Your task to perform on an android device: open app "Speedtest by Ookla" (install if not already installed) Image 0: 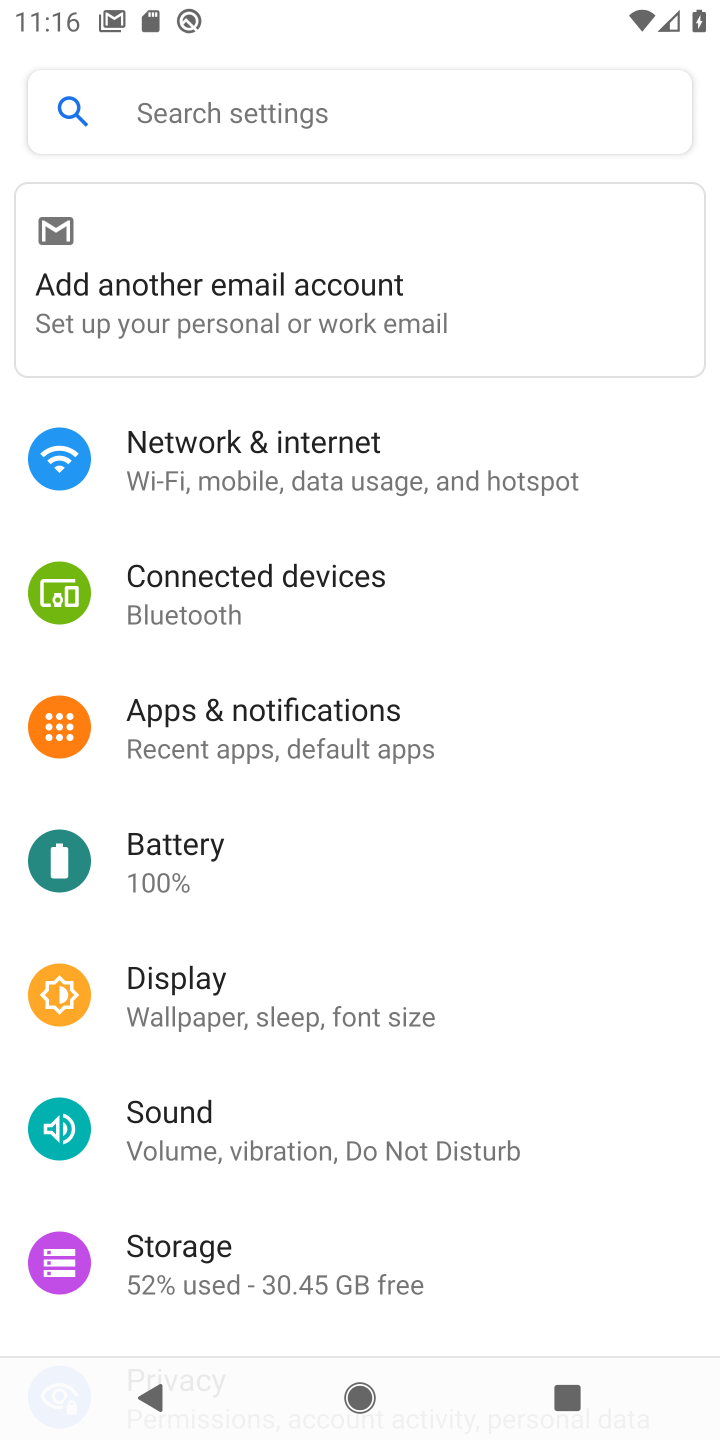
Step 0: press home button
Your task to perform on an android device: open app "Speedtest by Ookla" (install if not already installed) Image 1: 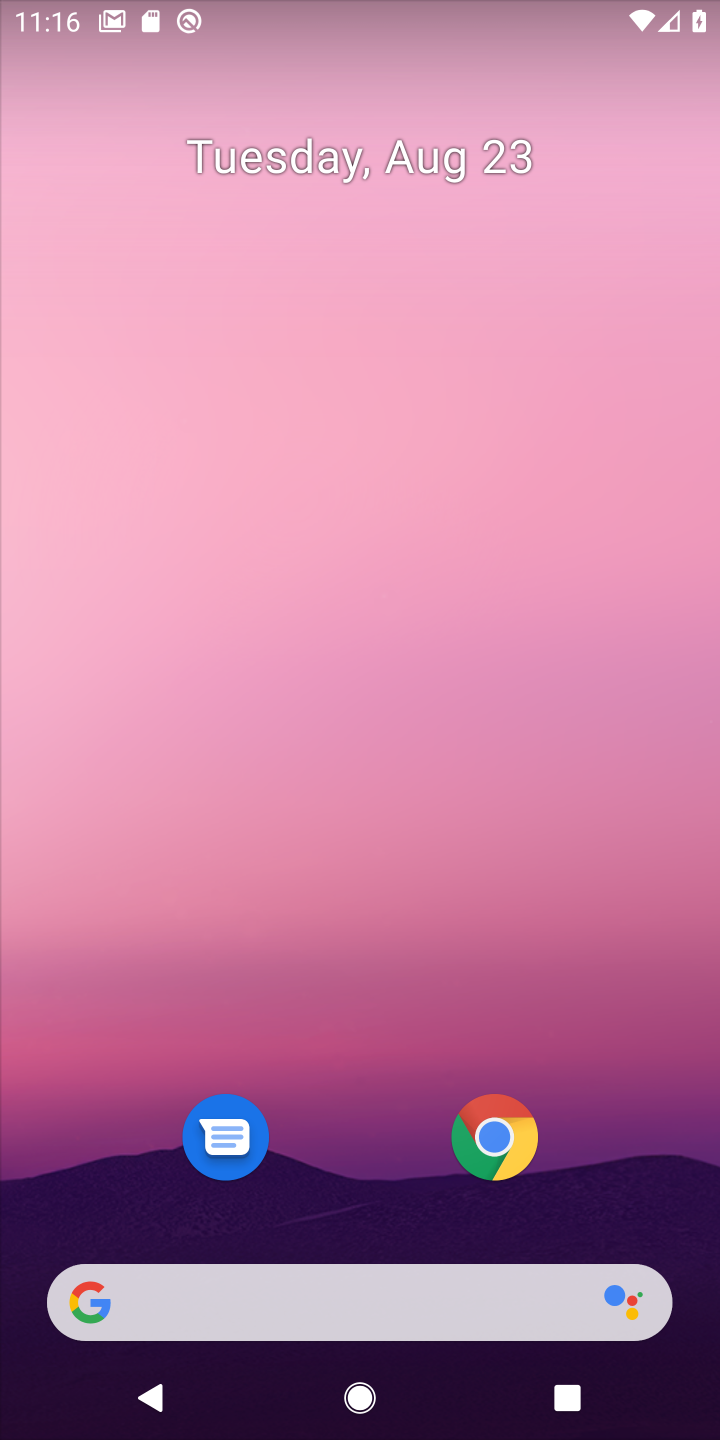
Step 1: click (317, 686)
Your task to perform on an android device: open app "Speedtest by Ookla" (install if not already installed) Image 2: 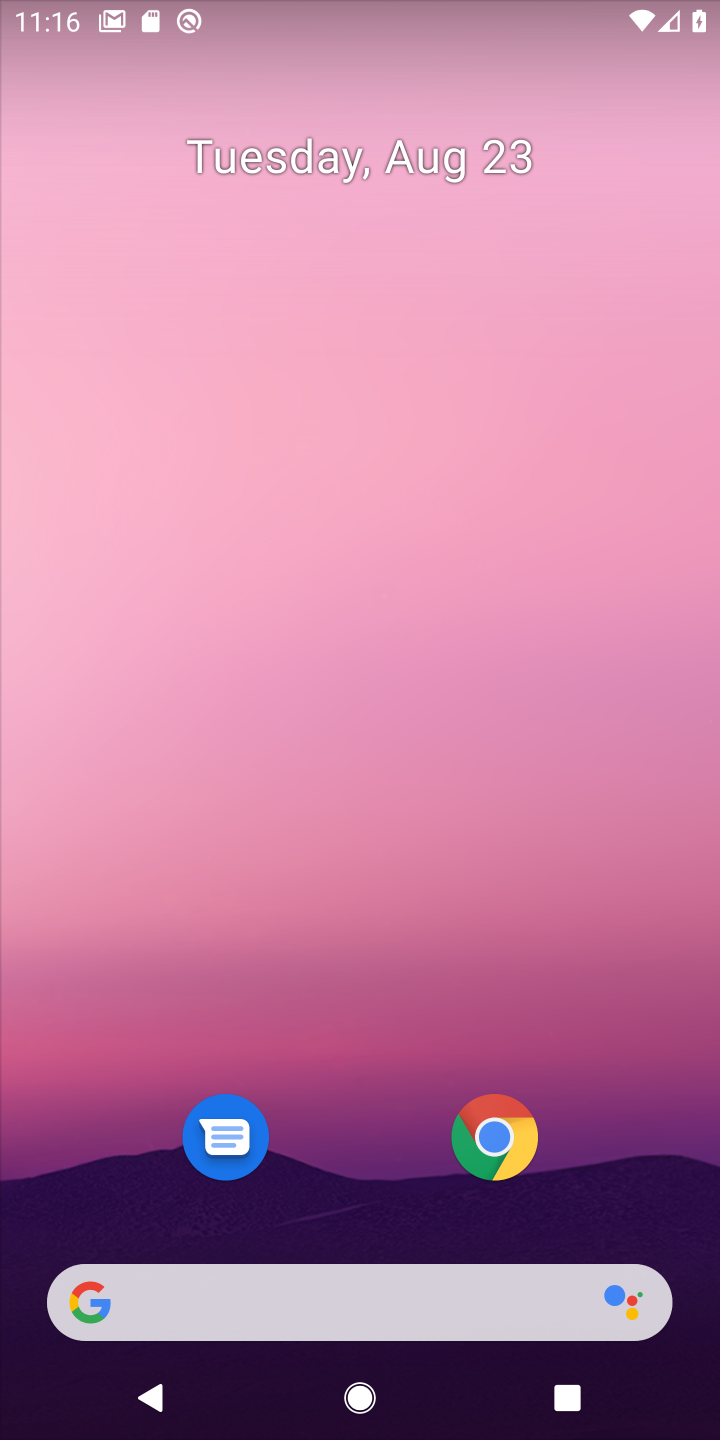
Step 2: drag from (327, 934) to (444, 217)
Your task to perform on an android device: open app "Speedtest by Ookla" (install if not already installed) Image 3: 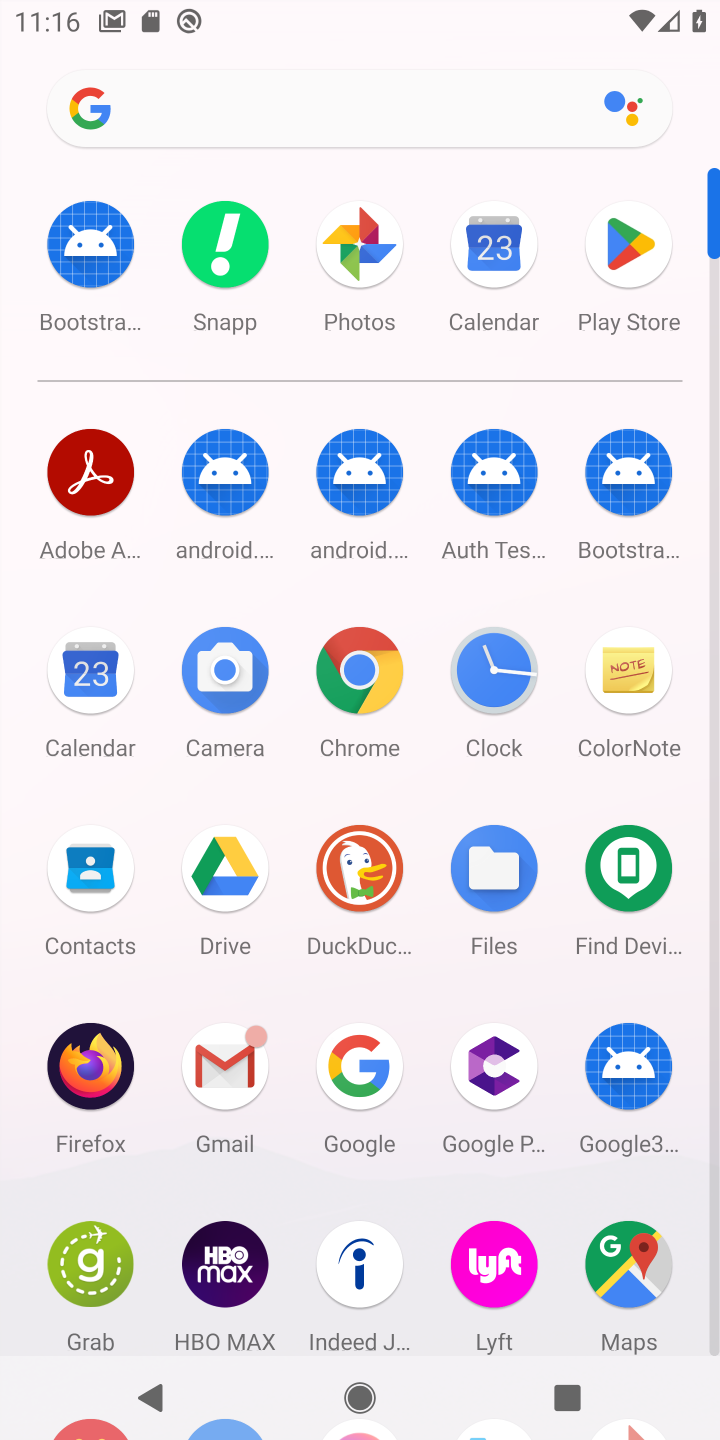
Step 3: click (623, 298)
Your task to perform on an android device: open app "Speedtest by Ookla" (install if not already installed) Image 4: 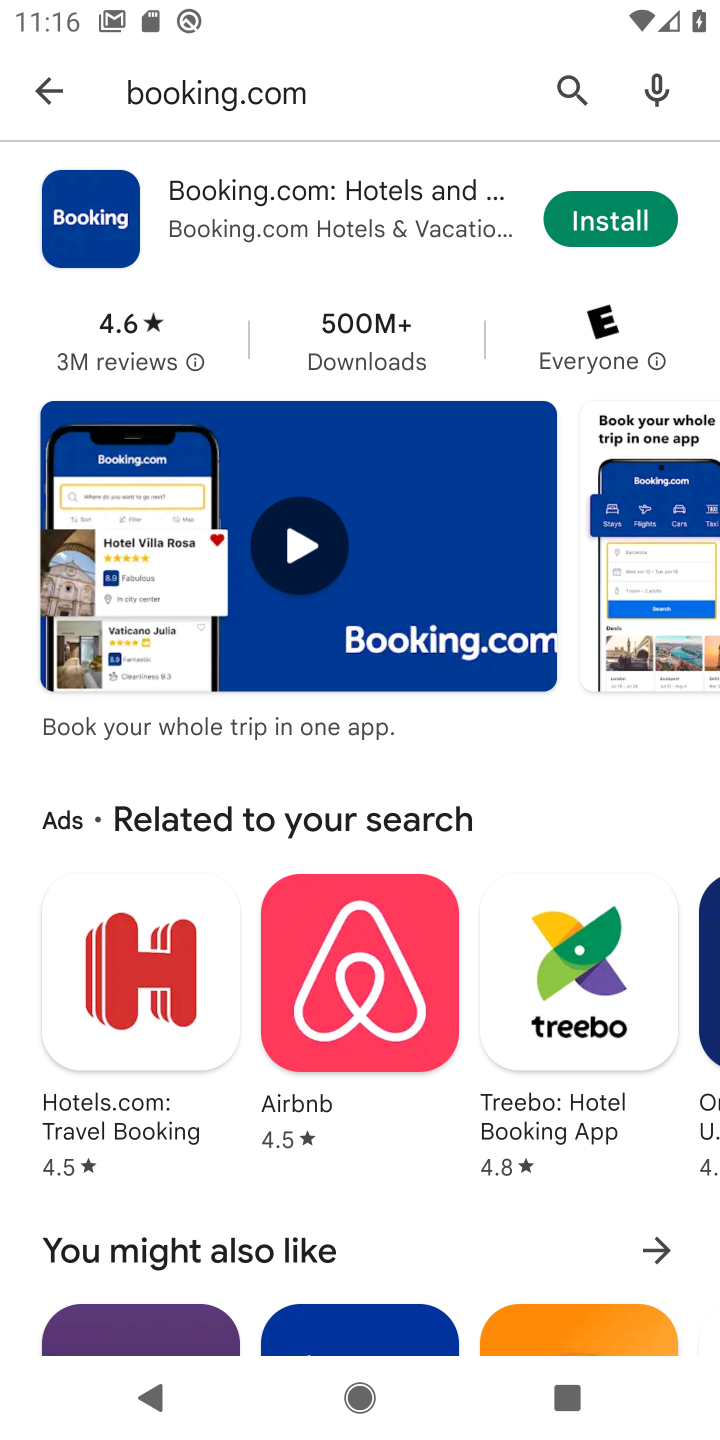
Step 4: click (323, 109)
Your task to perform on an android device: open app "Speedtest by Ookla" (install if not already installed) Image 5: 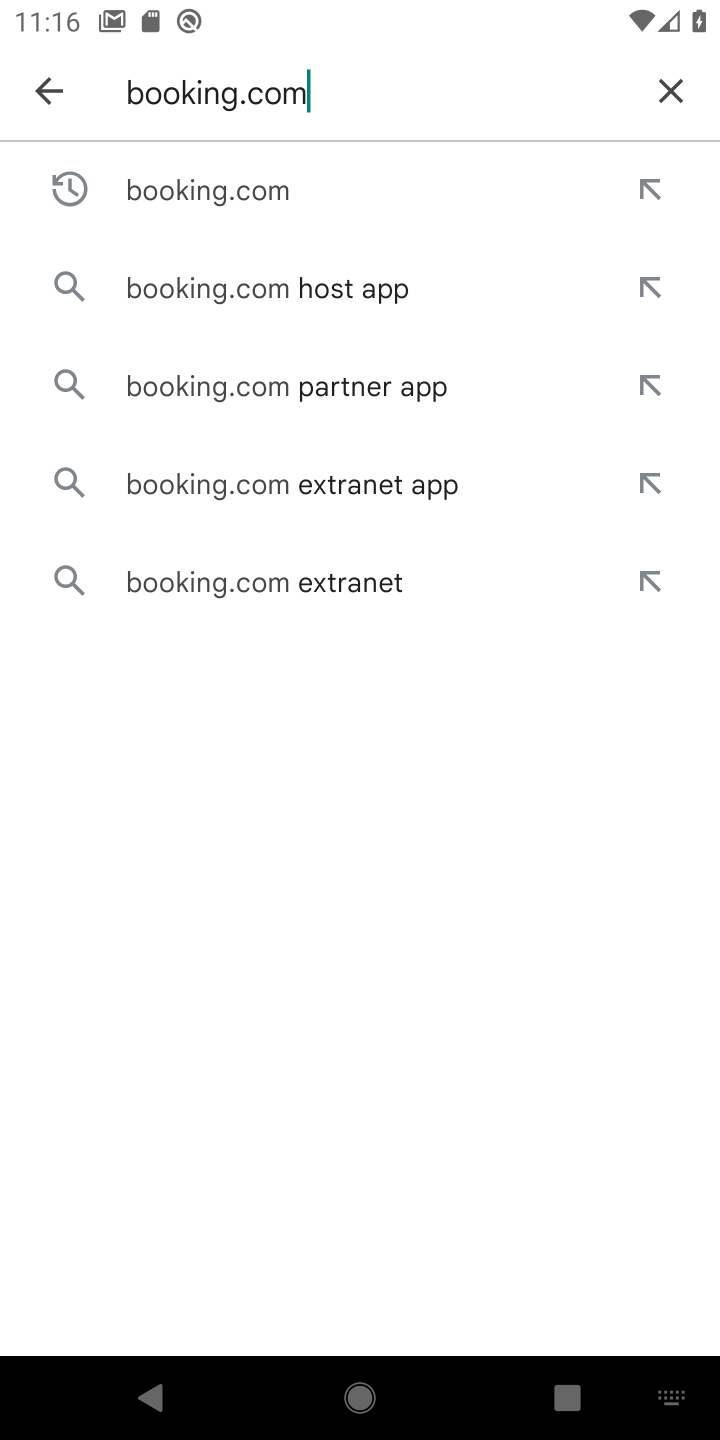
Step 5: click (668, 94)
Your task to perform on an android device: open app "Speedtest by Ookla" (install if not already installed) Image 6: 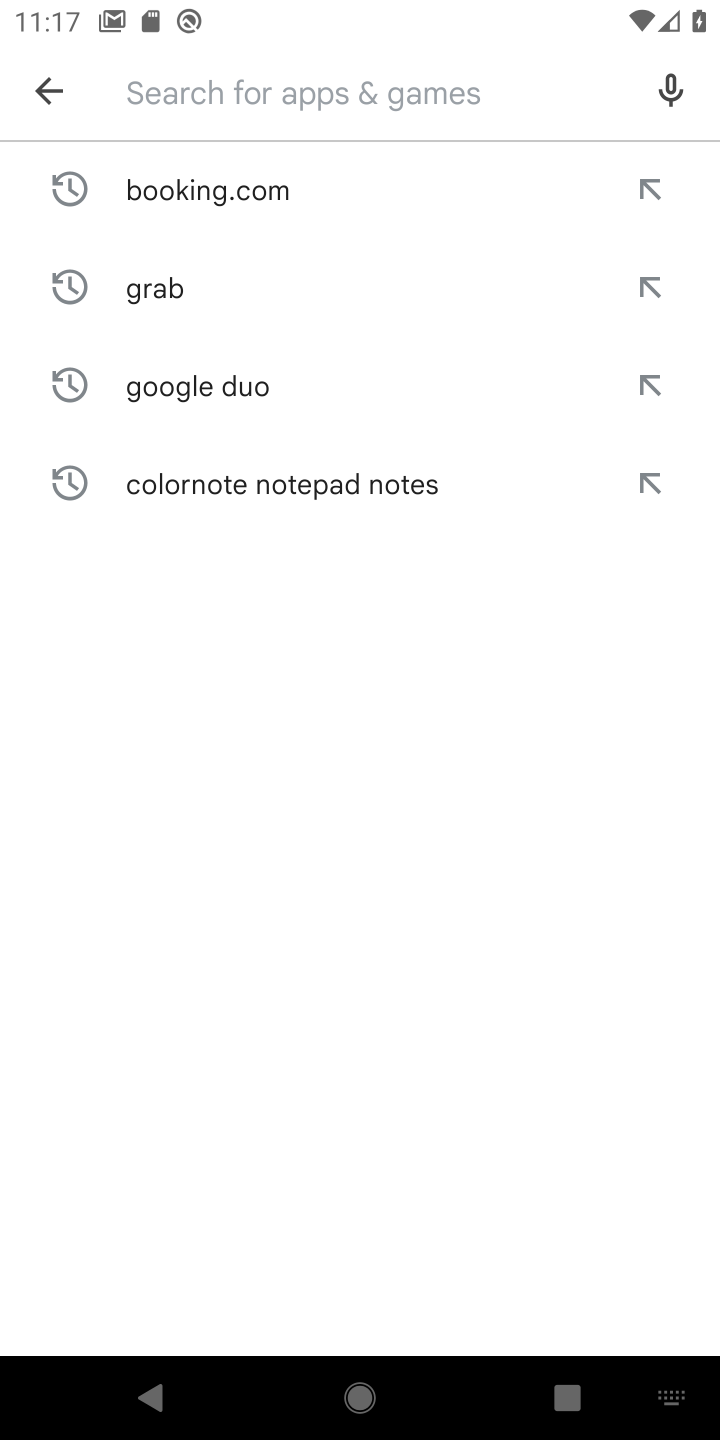
Step 6: type "speedtest by Ookla"
Your task to perform on an android device: open app "Speedtest by Ookla" (install if not already installed) Image 7: 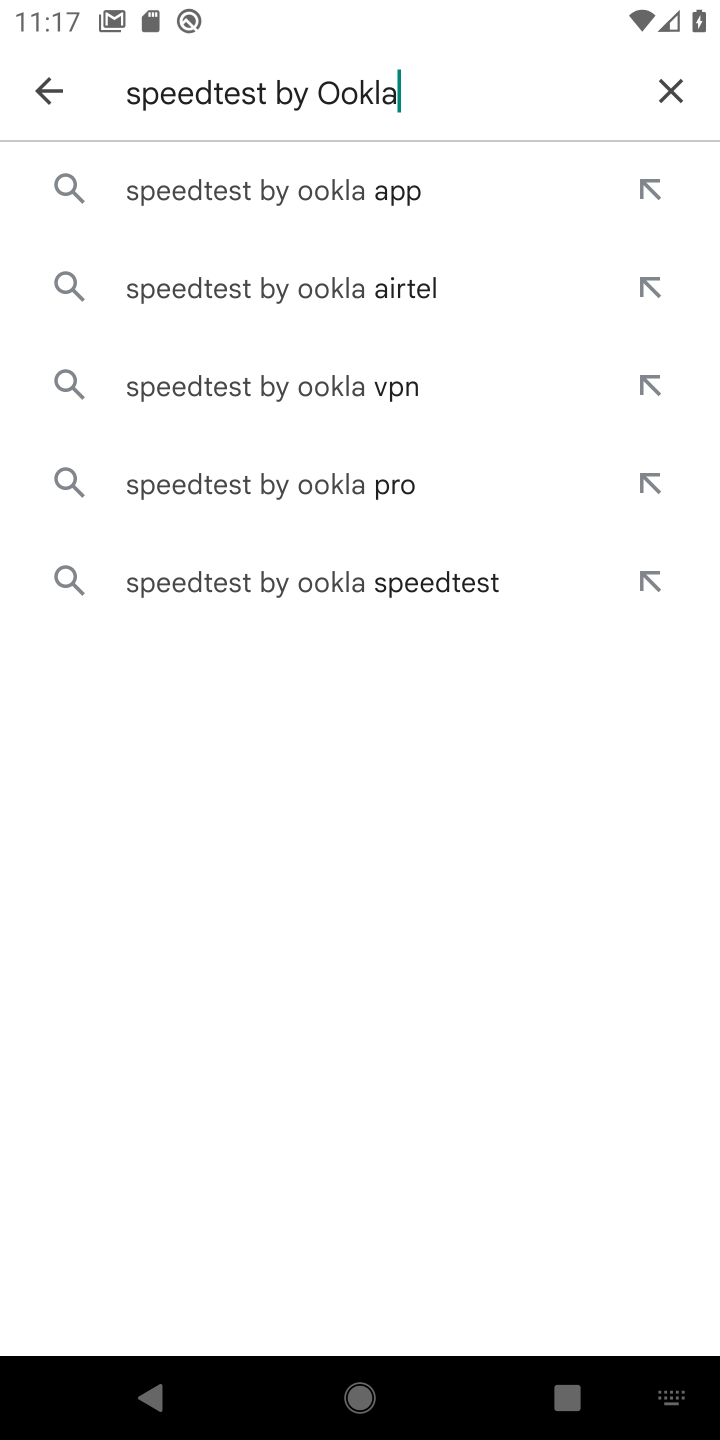
Step 7: click (284, 196)
Your task to perform on an android device: open app "Speedtest by Ookla" (install if not already installed) Image 8: 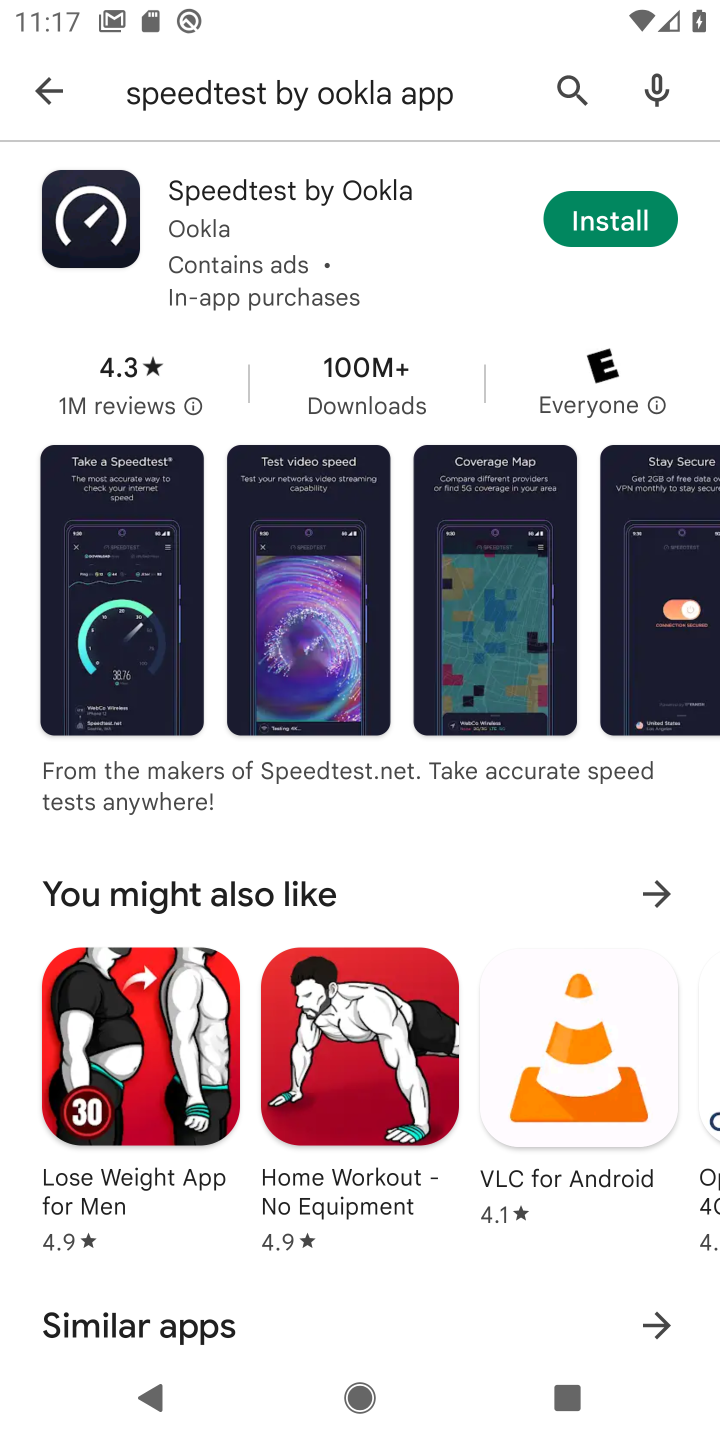
Step 8: click (610, 216)
Your task to perform on an android device: open app "Speedtest by Ookla" (install if not already installed) Image 9: 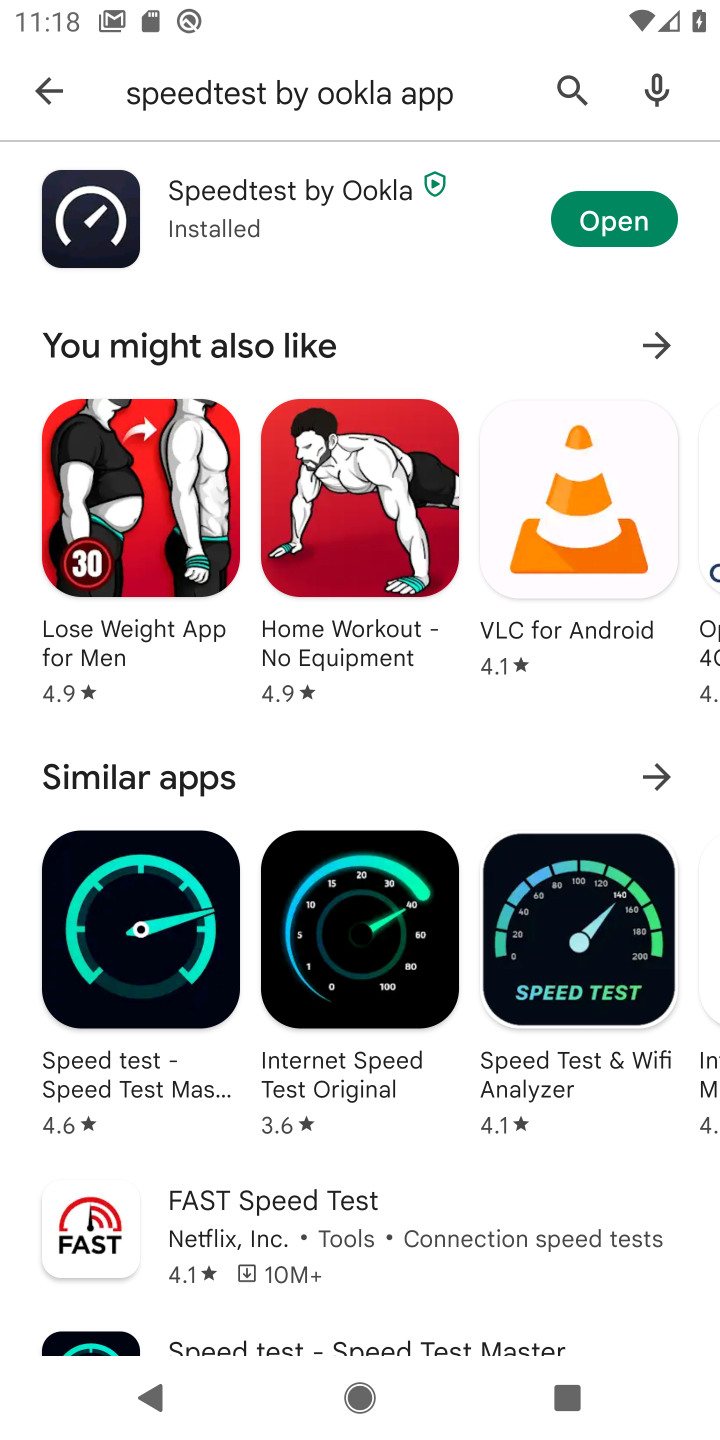
Step 9: click (614, 206)
Your task to perform on an android device: open app "Speedtest by Ookla" (install if not already installed) Image 10: 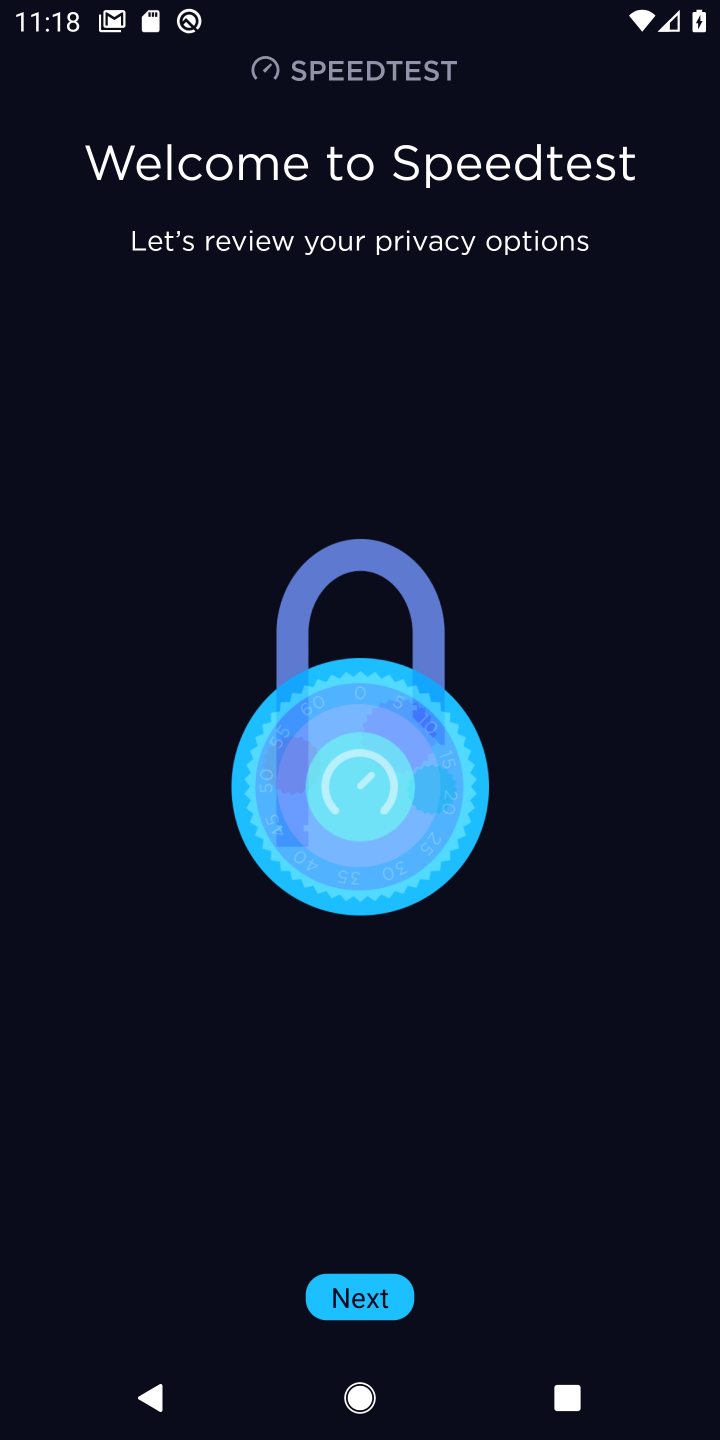
Step 10: click (379, 1296)
Your task to perform on an android device: open app "Speedtest by Ookla" (install if not already installed) Image 11: 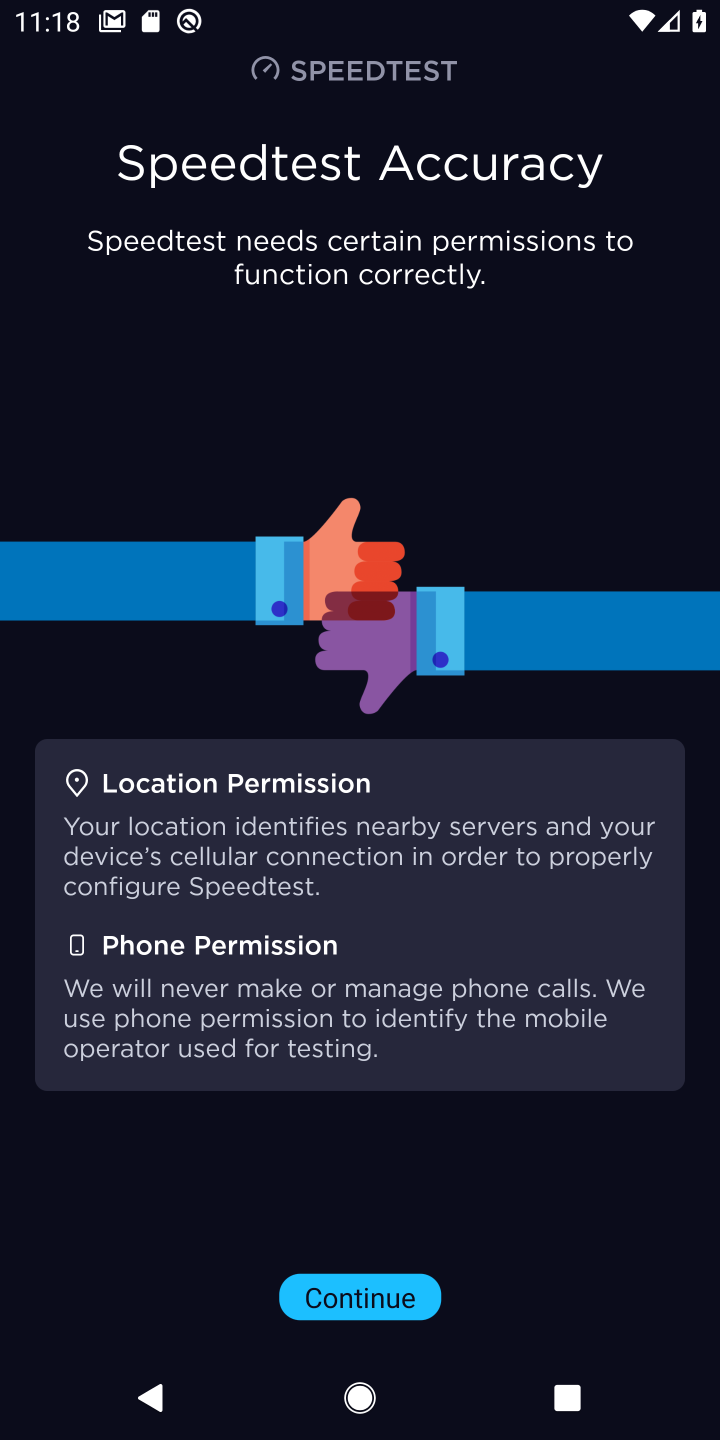
Step 11: click (376, 1296)
Your task to perform on an android device: open app "Speedtest by Ookla" (install if not already installed) Image 12: 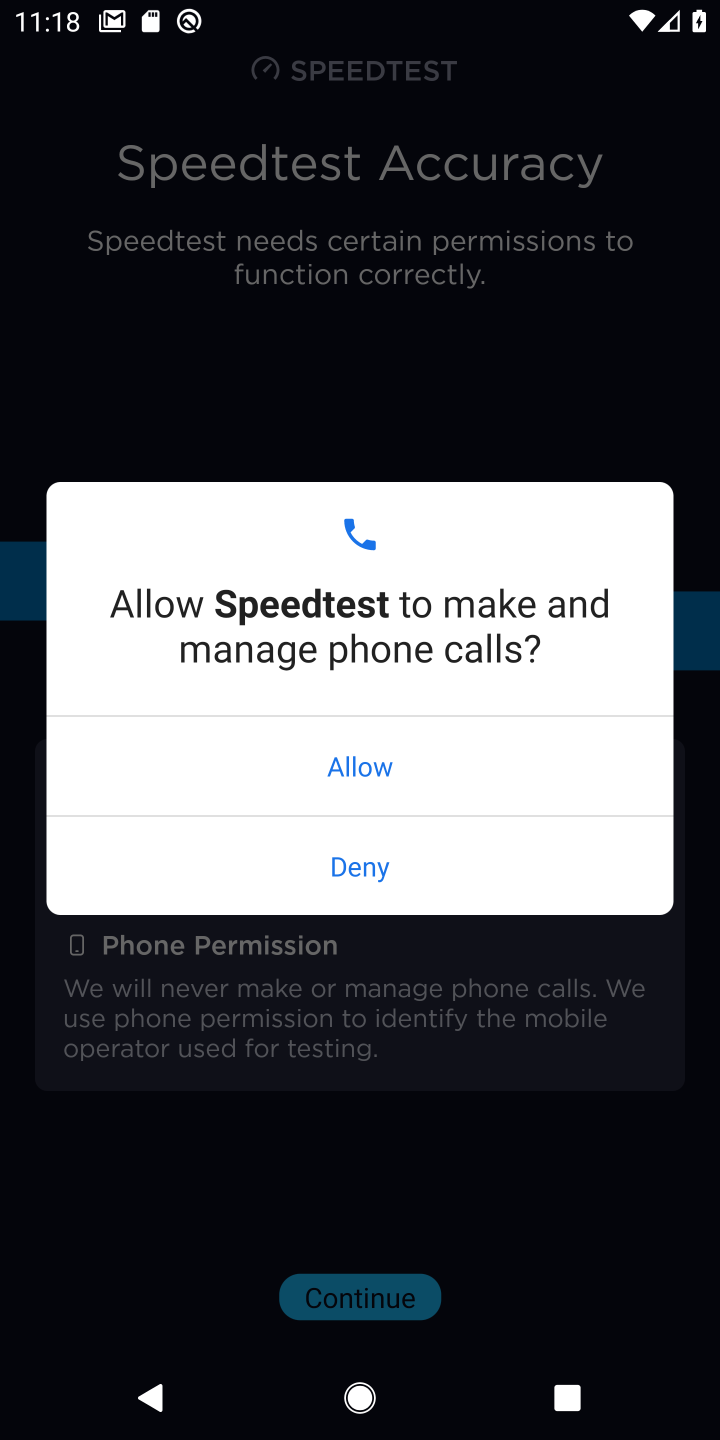
Step 12: click (411, 762)
Your task to perform on an android device: open app "Speedtest by Ookla" (install if not already installed) Image 13: 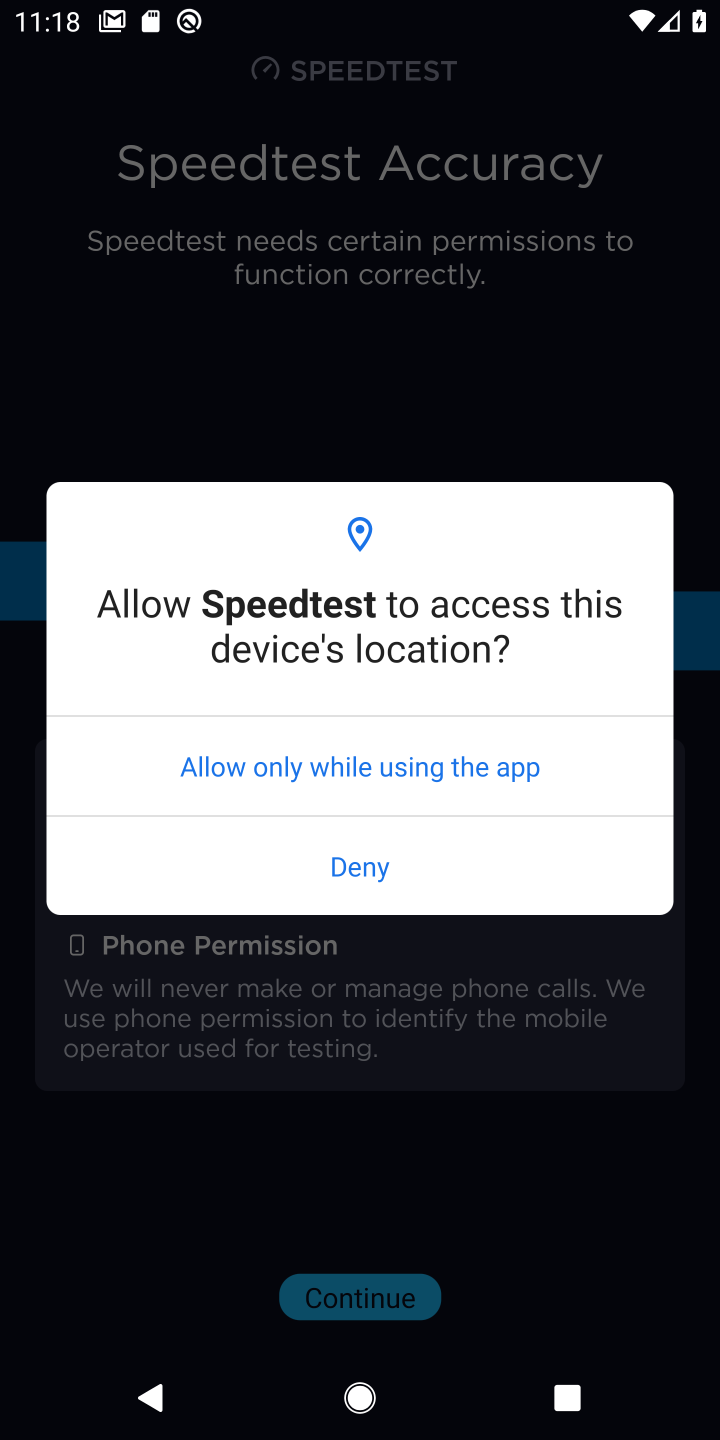
Step 13: click (418, 753)
Your task to perform on an android device: open app "Speedtest by Ookla" (install if not already installed) Image 14: 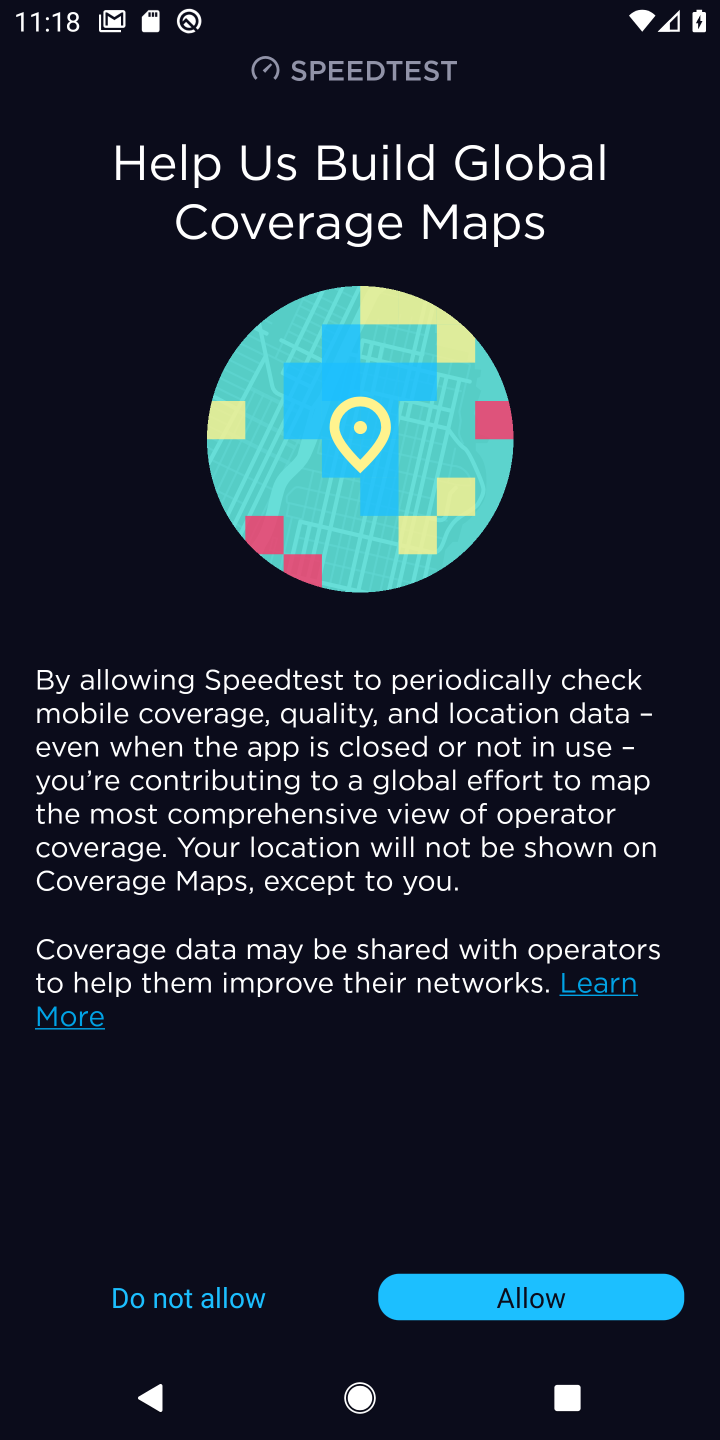
Step 14: click (495, 1296)
Your task to perform on an android device: open app "Speedtest by Ookla" (install if not already installed) Image 15: 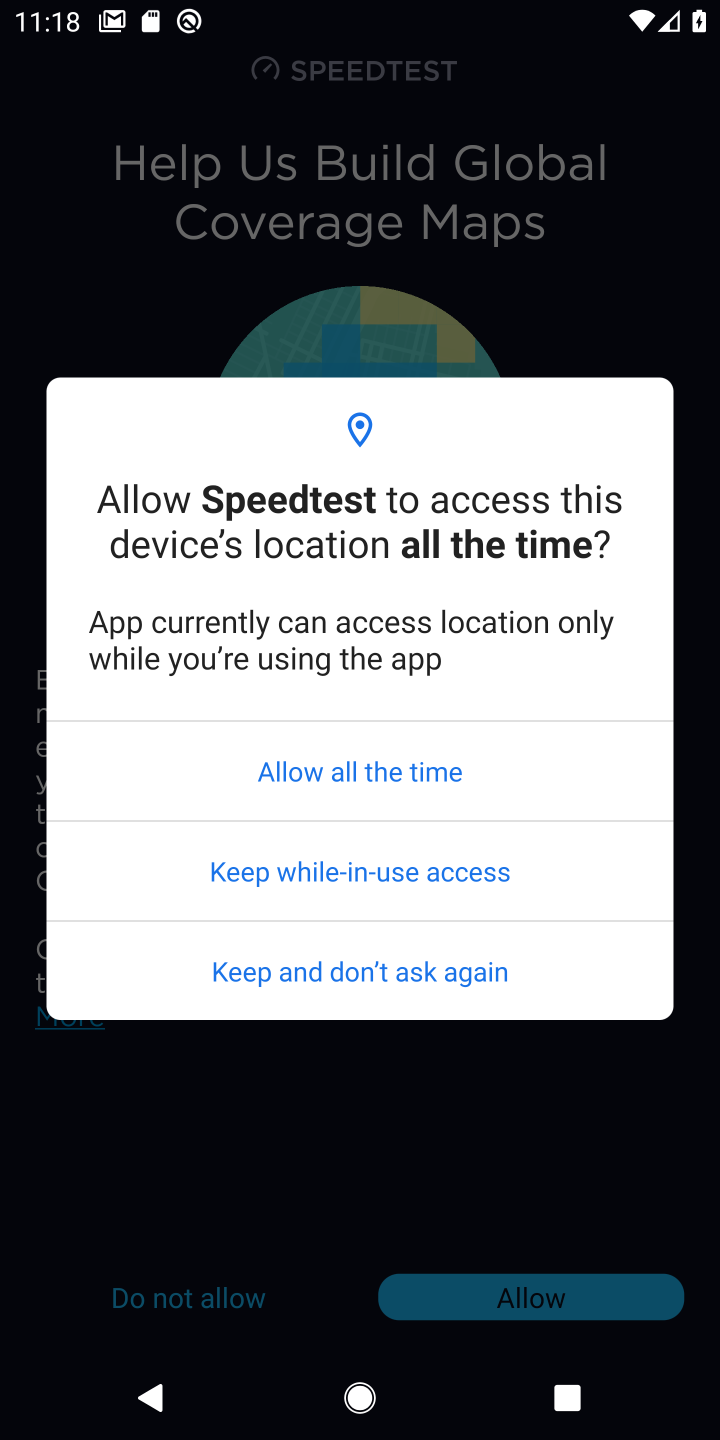
Step 15: click (455, 762)
Your task to perform on an android device: open app "Speedtest by Ookla" (install if not already installed) Image 16: 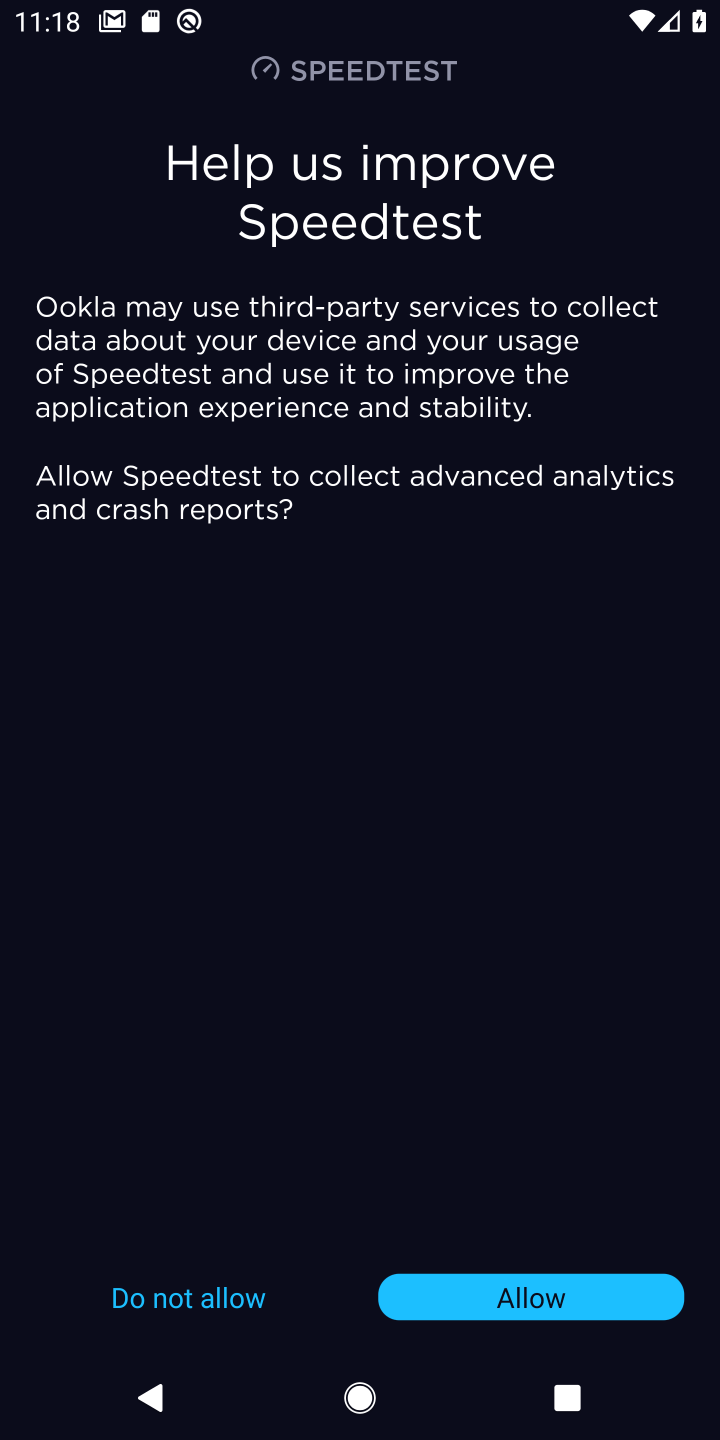
Step 16: click (471, 1292)
Your task to perform on an android device: open app "Speedtest by Ookla" (install if not already installed) Image 17: 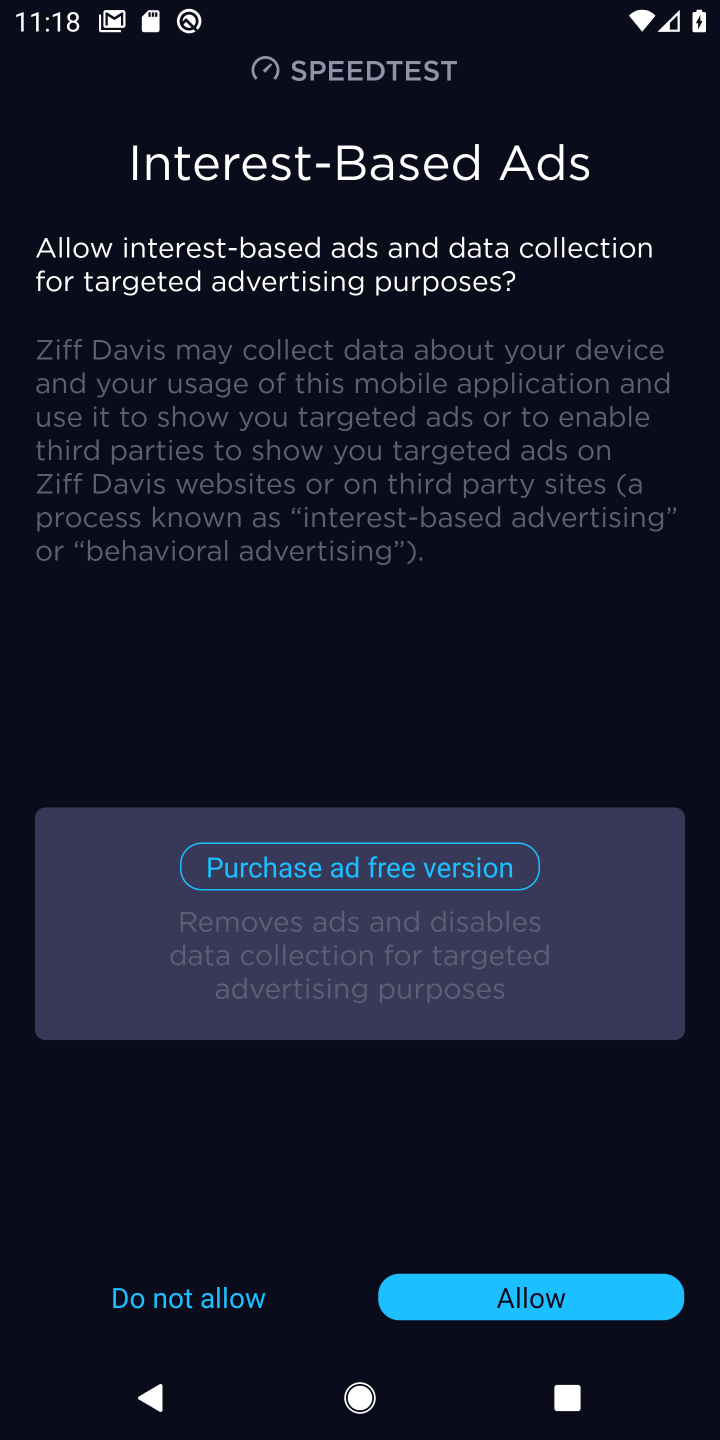
Step 17: click (581, 1292)
Your task to perform on an android device: open app "Speedtest by Ookla" (install if not already installed) Image 18: 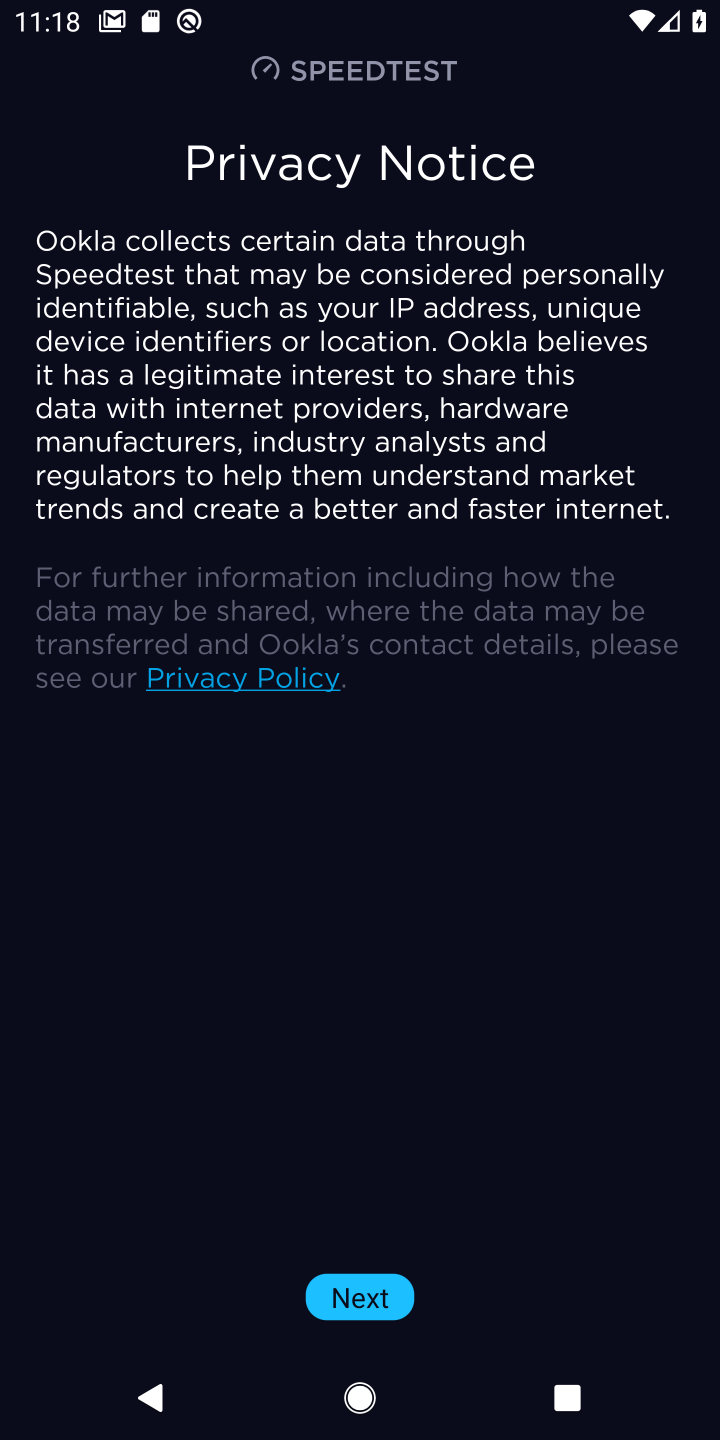
Step 18: click (392, 1302)
Your task to perform on an android device: open app "Speedtest by Ookla" (install if not already installed) Image 19: 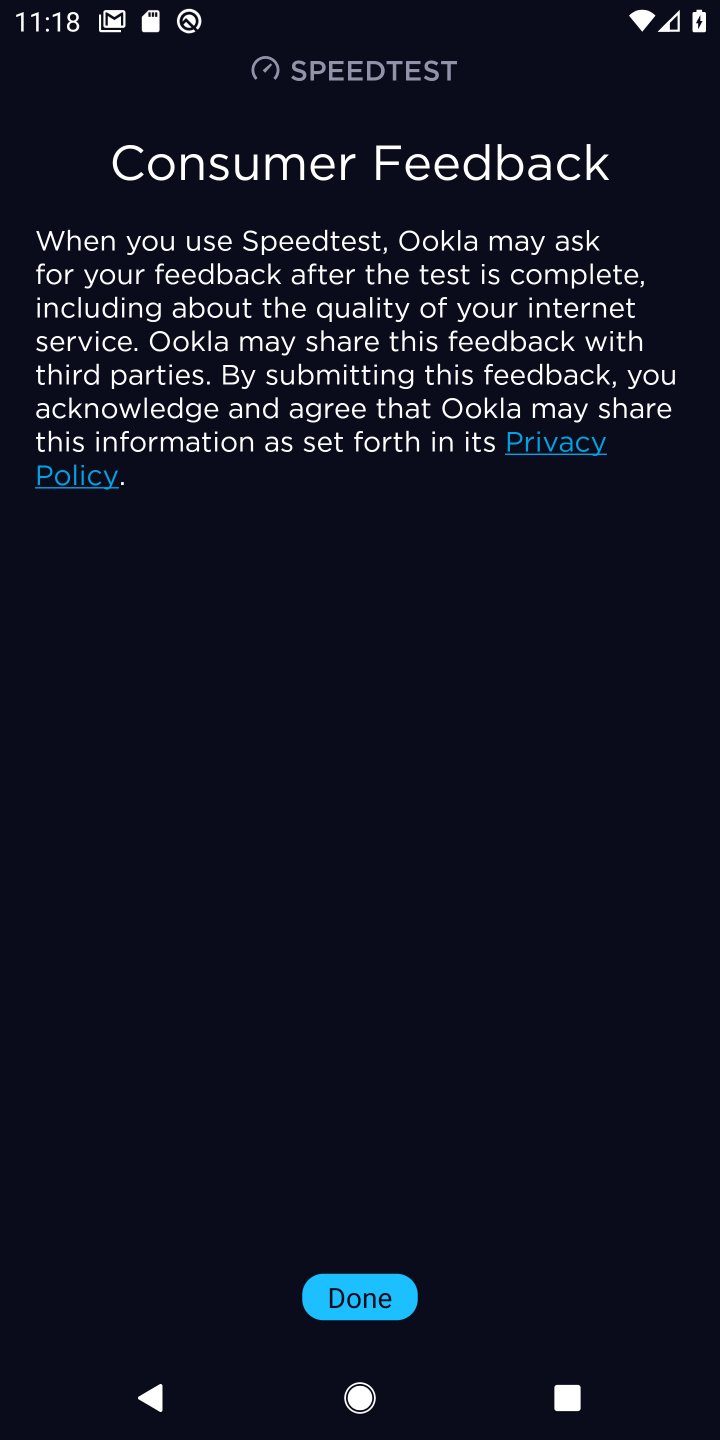
Step 19: click (392, 1302)
Your task to perform on an android device: open app "Speedtest by Ookla" (install if not already installed) Image 20: 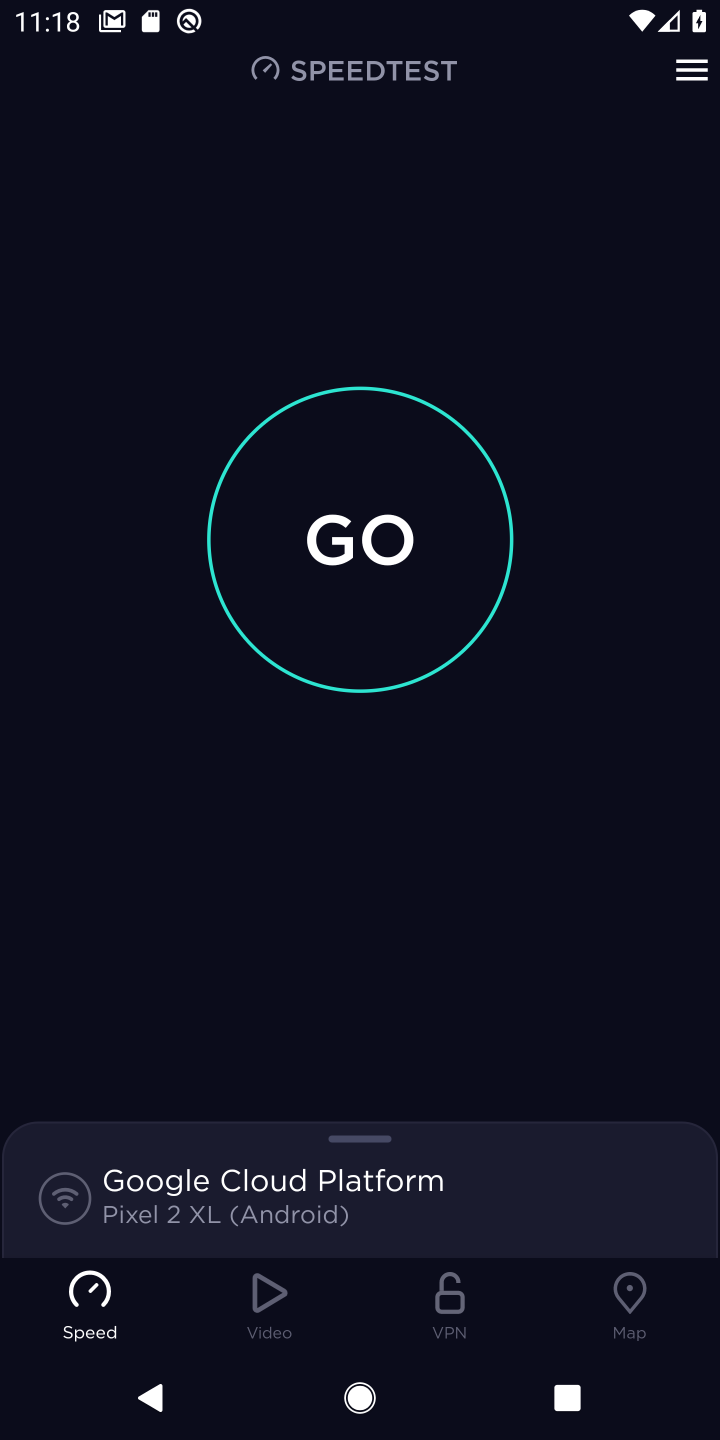
Step 20: click (399, 496)
Your task to perform on an android device: open app "Speedtest by Ookla" (install if not already installed) Image 21: 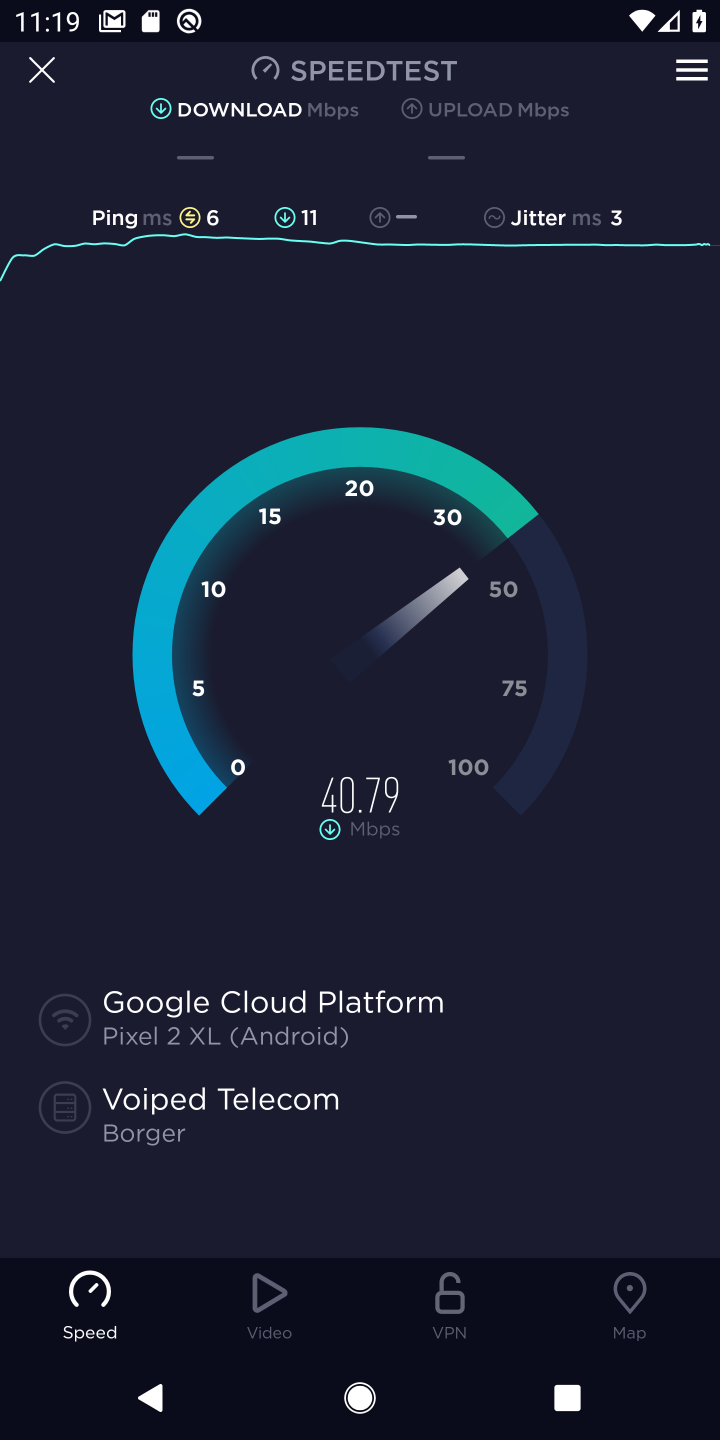
Step 21: task complete